Your task to perform on an android device: What's a good restaurant in Denver? Image 0: 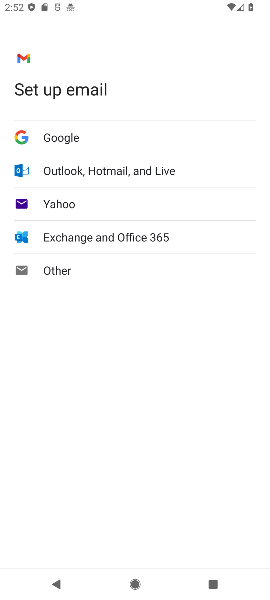
Step 0: press home button
Your task to perform on an android device: What's a good restaurant in Denver? Image 1: 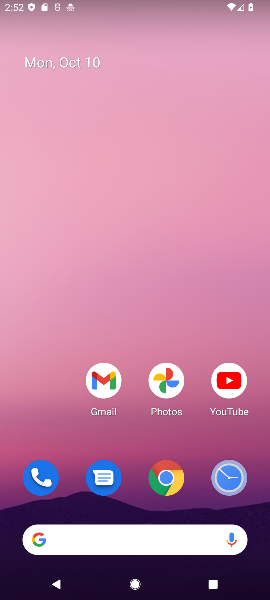
Step 1: click (169, 487)
Your task to perform on an android device: What's a good restaurant in Denver? Image 2: 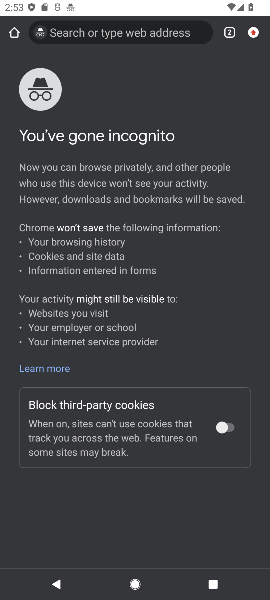
Step 2: click (136, 28)
Your task to perform on an android device: What's a good restaurant in Denver? Image 3: 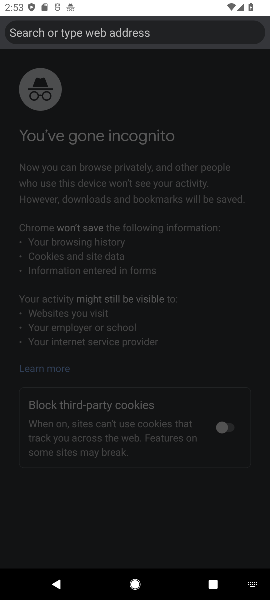
Step 3: type "good restaurant in Denver?"
Your task to perform on an android device: What's a good restaurant in Denver? Image 4: 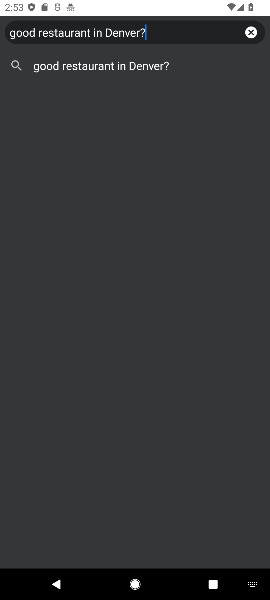
Step 4: click (137, 66)
Your task to perform on an android device: What's a good restaurant in Denver? Image 5: 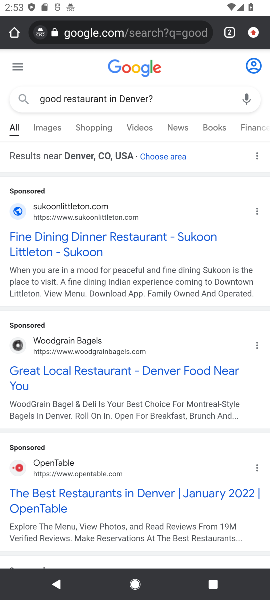
Step 5: drag from (101, 509) to (104, 215)
Your task to perform on an android device: What's a good restaurant in Denver? Image 6: 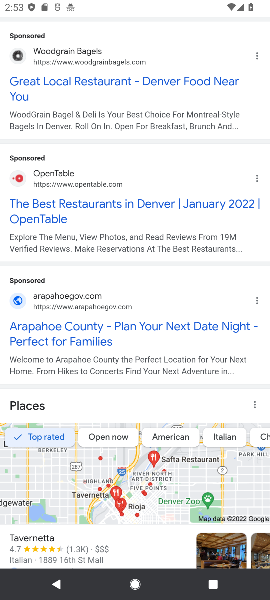
Step 6: drag from (118, 395) to (220, 160)
Your task to perform on an android device: What's a good restaurant in Denver? Image 7: 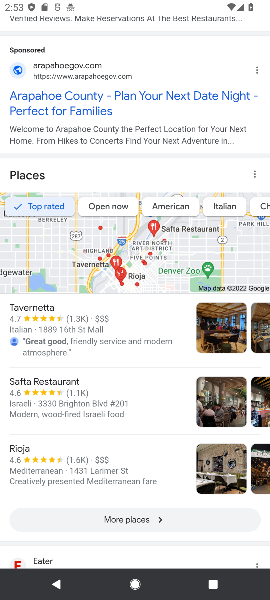
Step 7: drag from (67, 548) to (143, 237)
Your task to perform on an android device: What's a good restaurant in Denver? Image 8: 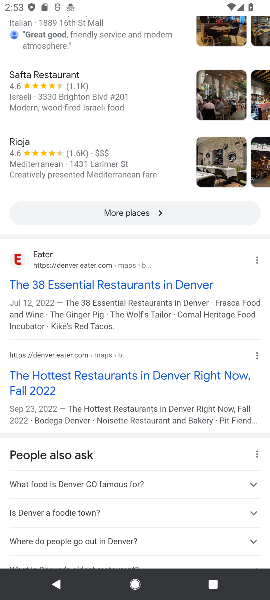
Step 8: click (102, 290)
Your task to perform on an android device: What's a good restaurant in Denver? Image 9: 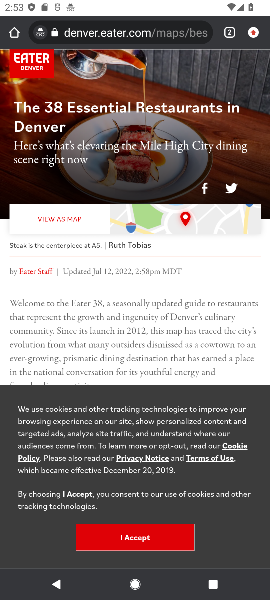
Step 9: click (153, 533)
Your task to perform on an android device: What's a good restaurant in Denver? Image 10: 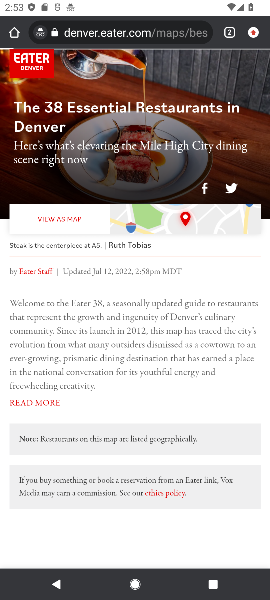
Step 10: task complete